Your task to perform on an android device: When is my next meeting? Image 0: 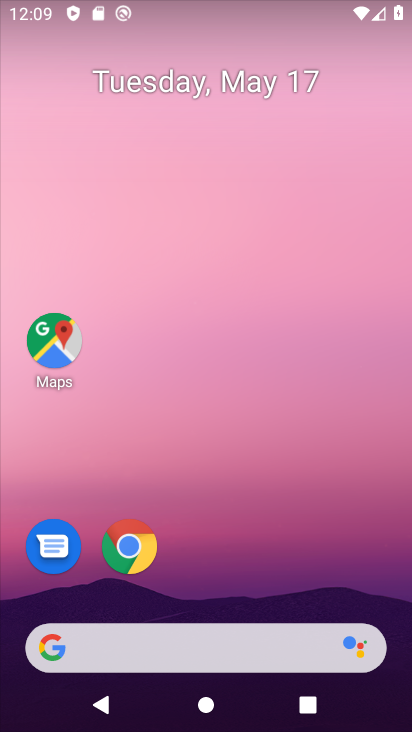
Step 0: click (327, 116)
Your task to perform on an android device: When is my next meeting? Image 1: 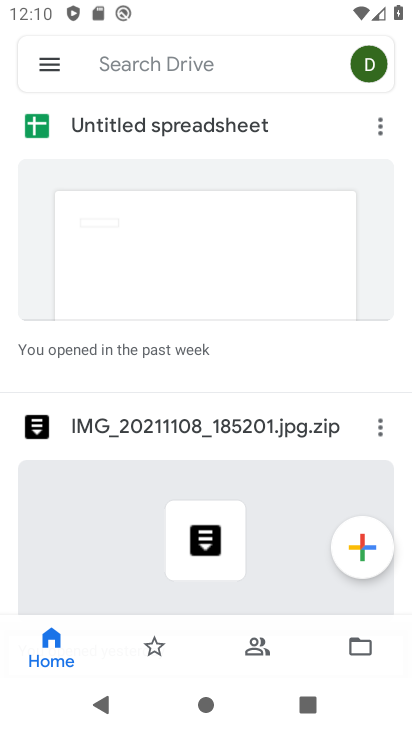
Step 1: press home button
Your task to perform on an android device: When is my next meeting? Image 2: 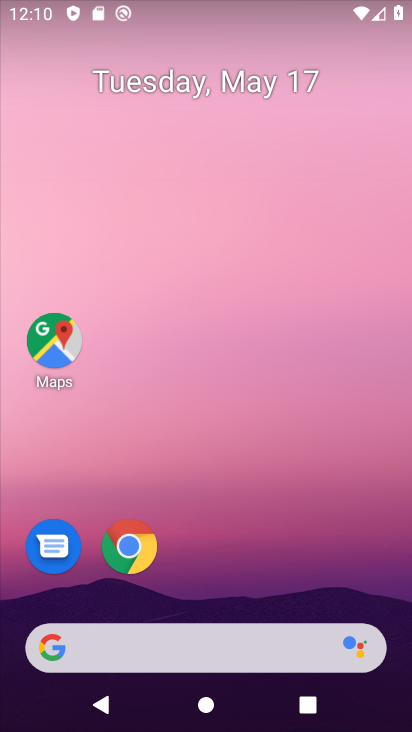
Step 2: drag from (261, 517) to (309, 87)
Your task to perform on an android device: When is my next meeting? Image 3: 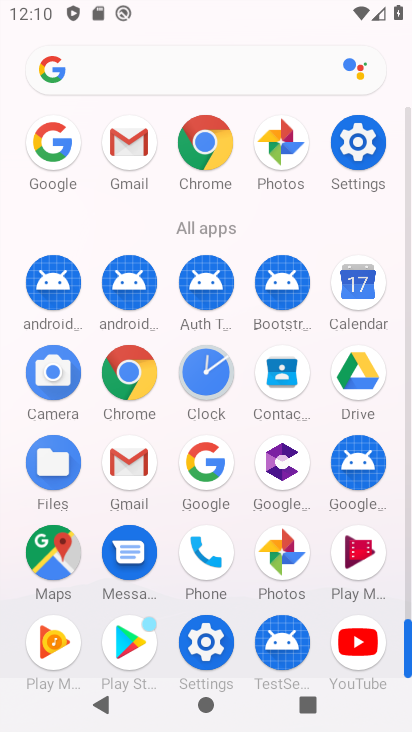
Step 3: click (361, 286)
Your task to perform on an android device: When is my next meeting? Image 4: 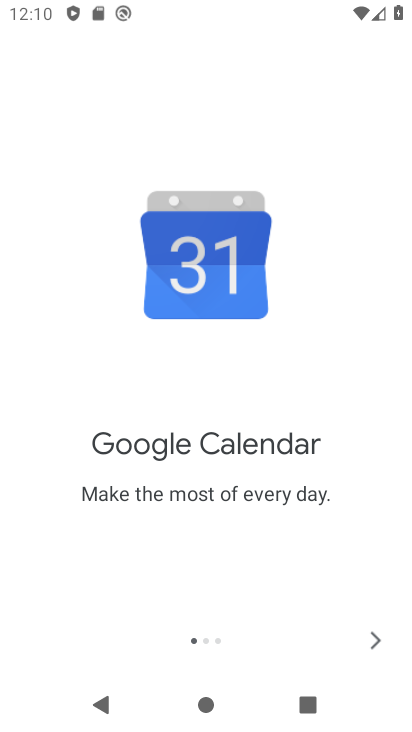
Step 4: click (382, 630)
Your task to perform on an android device: When is my next meeting? Image 5: 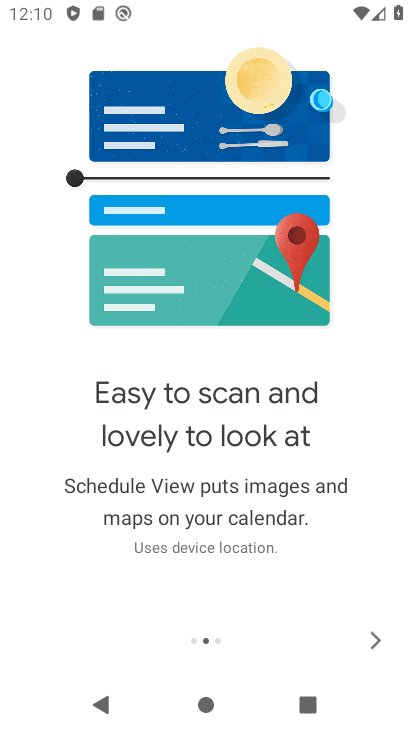
Step 5: click (383, 628)
Your task to perform on an android device: When is my next meeting? Image 6: 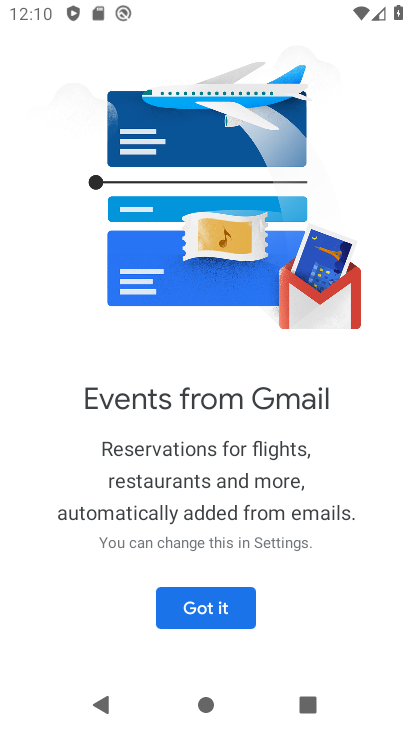
Step 6: click (231, 607)
Your task to perform on an android device: When is my next meeting? Image 7: 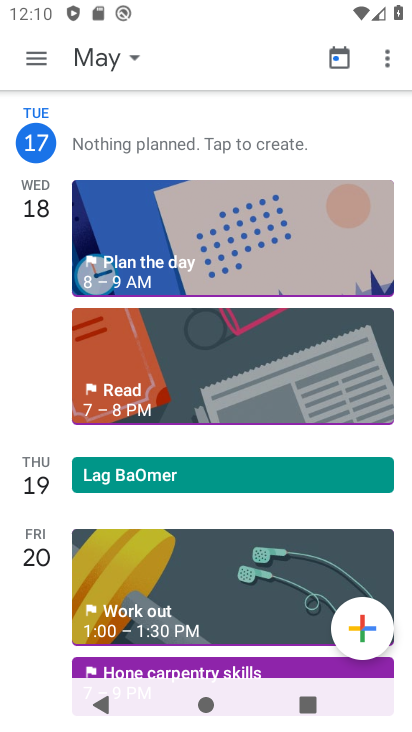
Step 7: click (110, 61)
Your task to perform on an android device: When is my next meeting? Image 8: 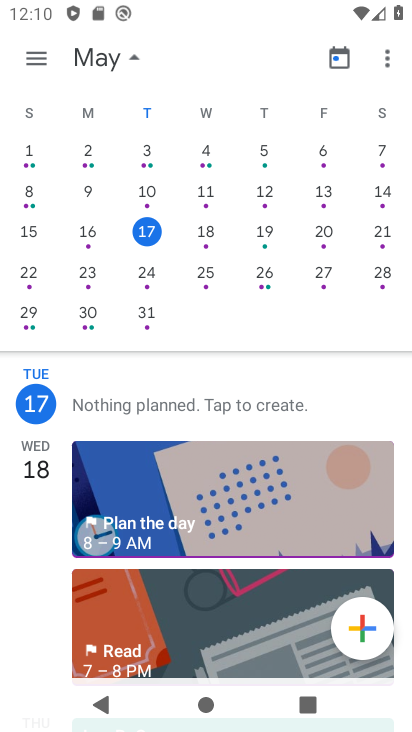
Step 8: task complete